Your task to perform on an android device: move a message to another label in the gmail app Image 0: 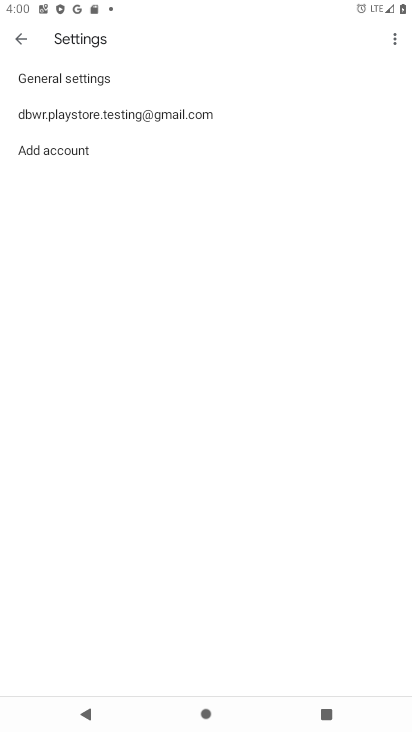
Step 0: click (27, 39)
Your task to perform on an android device: move a message to another label in the gmail app Image 1: 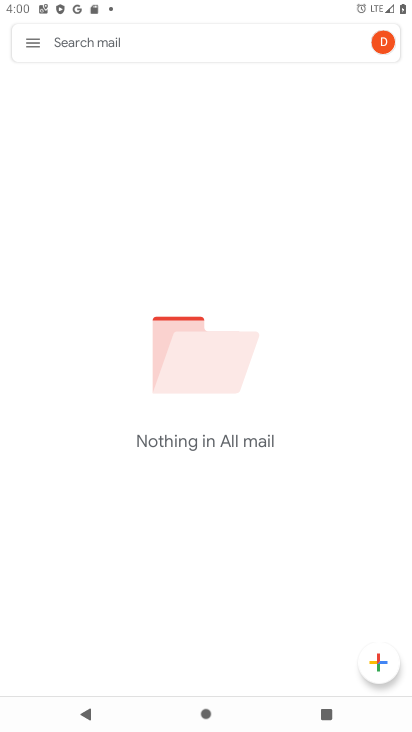
Step 1: task complete